Your task to perform on an android device: turn notification dots on Image 0: 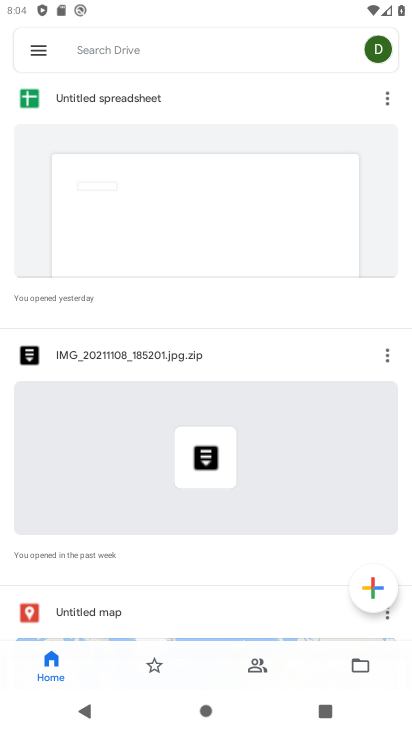
Step 0: press home button
Your task to perform on an android device: turn notification dots on Image 1: 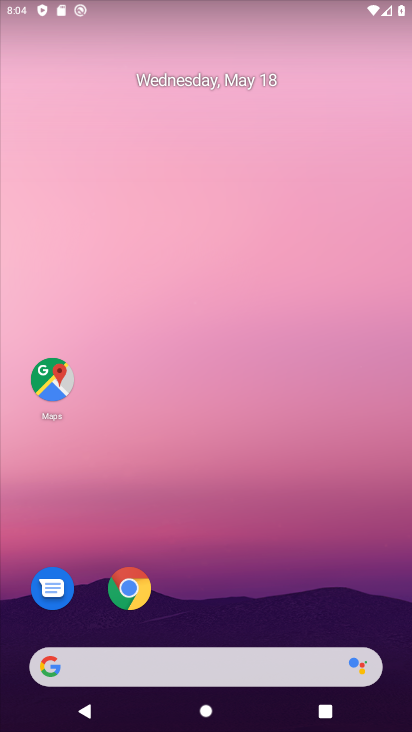
Step 1: drag from (268, 592) to (283, 0)
Your task to perform on an android device: turn notification dots on Image 2: 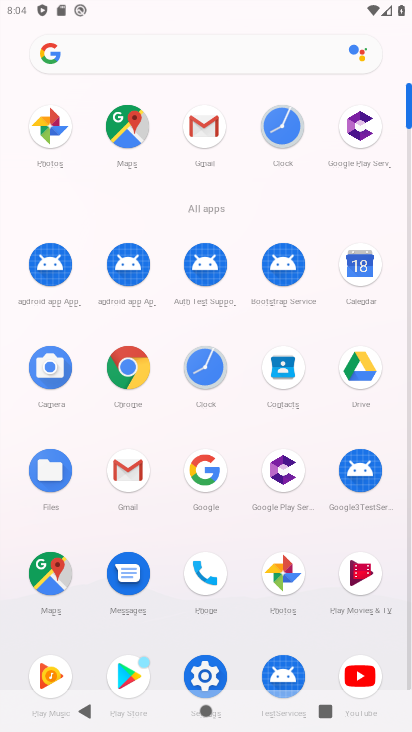
Step 2: click (205, 675)
Your task to perform on an android device: turn notification dots on Image 3: 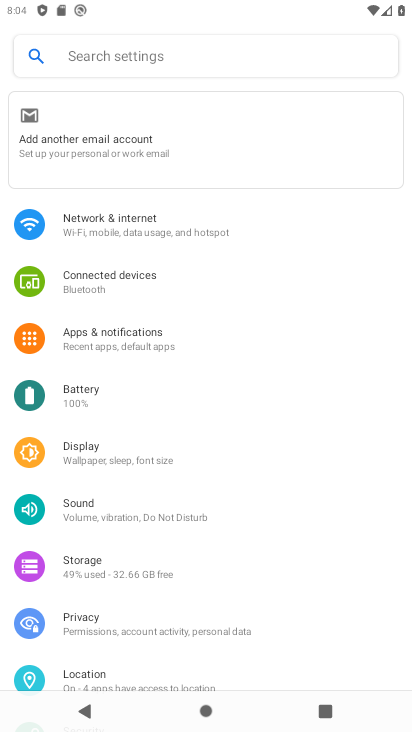
Step 3: click (129, 350)
Your task to perform on an android device: turn notification dots on Image 4: 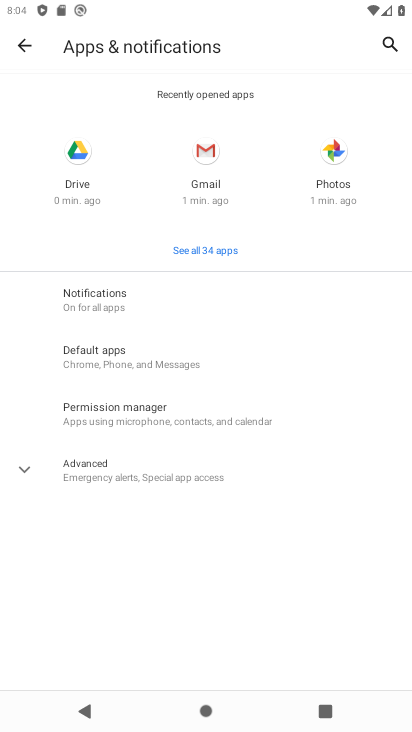
Step 4: click (86, 300)
Your task to perform on an android device: turn notification dots on Image 5: 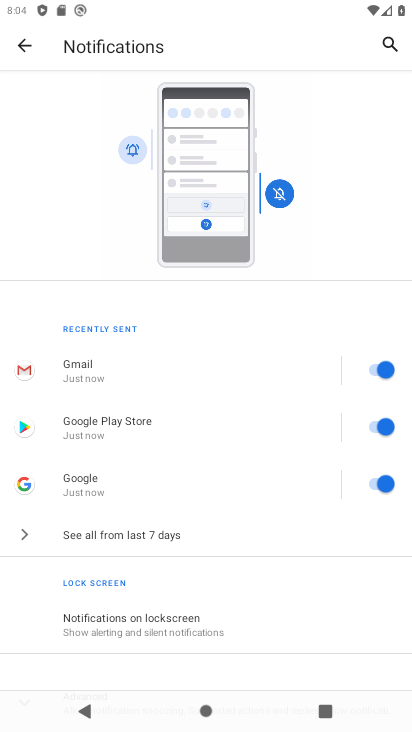
Step 5: drag from (89, 596) to (103, 223)
Your task to perform on an android device: turn notification dots on Image 6: 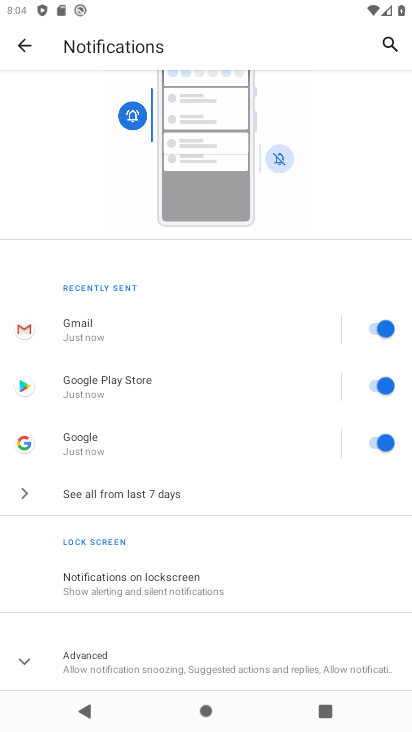
Step 6: click (21, 668)
Your task to perform on an android device: turn notification dots on Image 7: 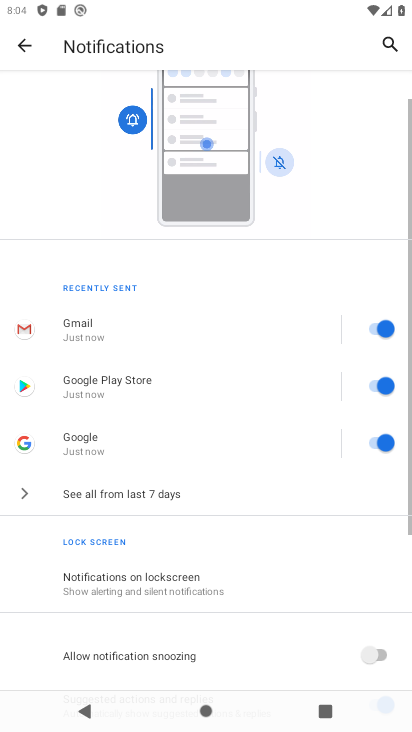
Step 7: task complete